Your task to perform on an android device: uninstall "Truecaller" Image 0: 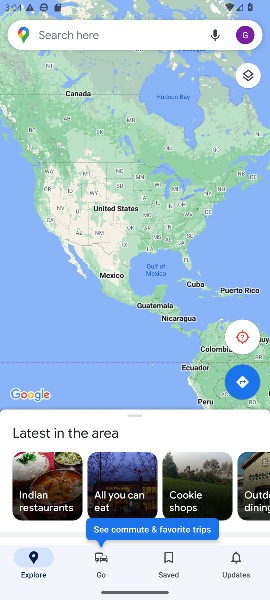
Step 0: press home button
Your task to perform on an android device: uninstall "Truecaller" Image 1: 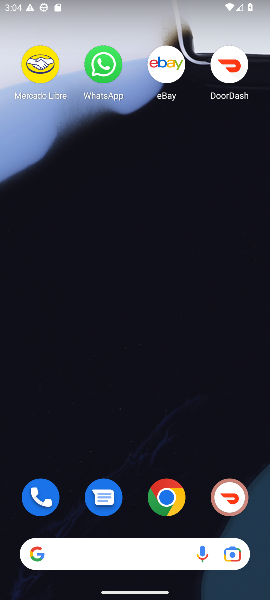
Step 1: drag from (143, 447) to (113, 57)
Your task to perform on an android device: uninstall "Truecaller" Image 2: 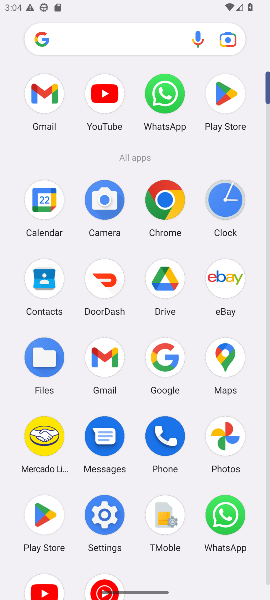
Step 2: click (218, 96)
Your task to perform on an android device: uninstall "Truecaller" Image 3: 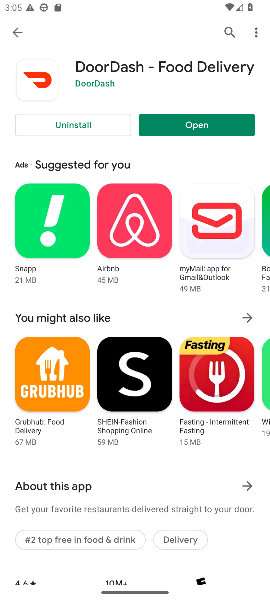
Step 3: click (226, 34)
Your task to perform on an android device: uninstall "Truecaller" Image 4: 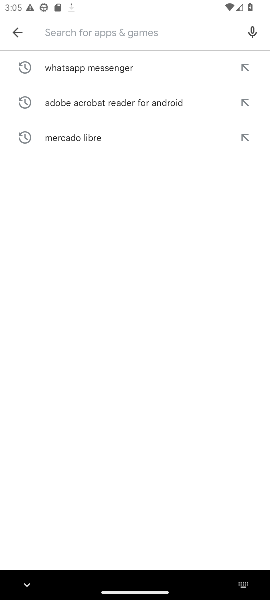
Step 4: type "Truecaller"
Your task to perform on an android device: uninstall "Truecaller" Image 5: 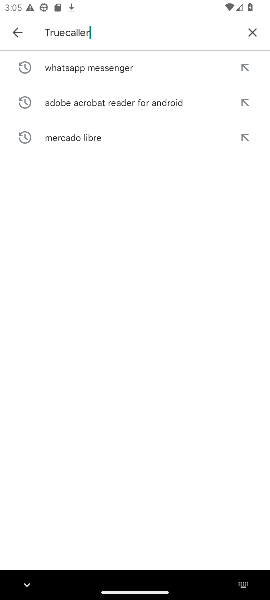
Step 5: type ""
Your task to perform on an android device: uninstall "Truecaller" Image 6: 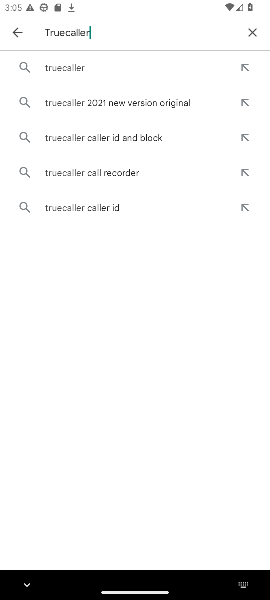
Step 6: click (51, 67)
Your task to perform on an android device: uninstall "Truecaller" Image 7: 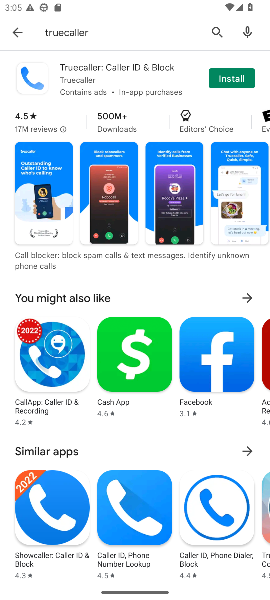
Step 7: task complete